Your task to perform on an android device: empty trash in google photos Image 0: 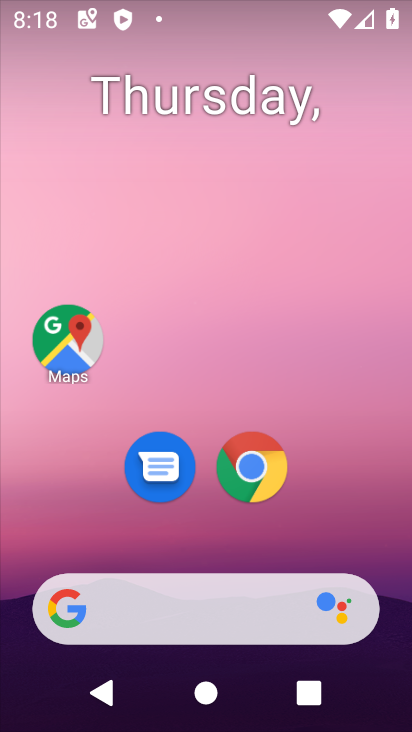
Step 0: drag from (236, 486) to (323, 159)
Your task to perform on an android device: empty trash in google photos Image 1: 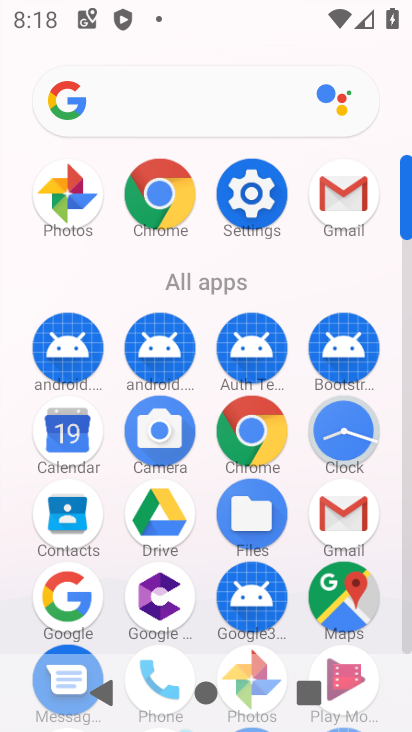
Step 1: click (79, 188)
Your task to perform on an android device: empty trash in google photos Image 2: 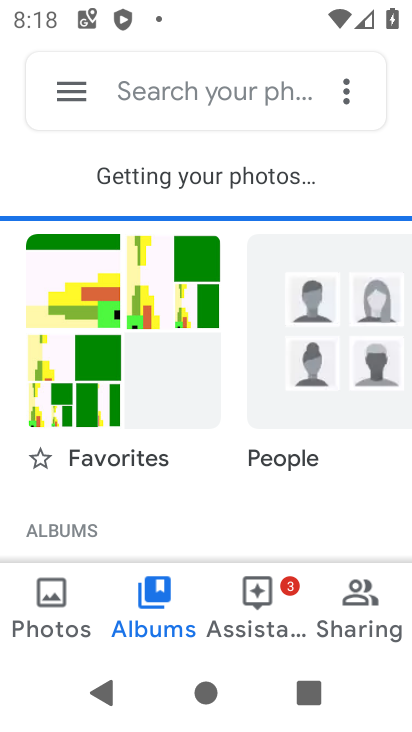
Step 2: click (59, 77)
Your task to perform on an android device: empty trash in google photos Image 3: 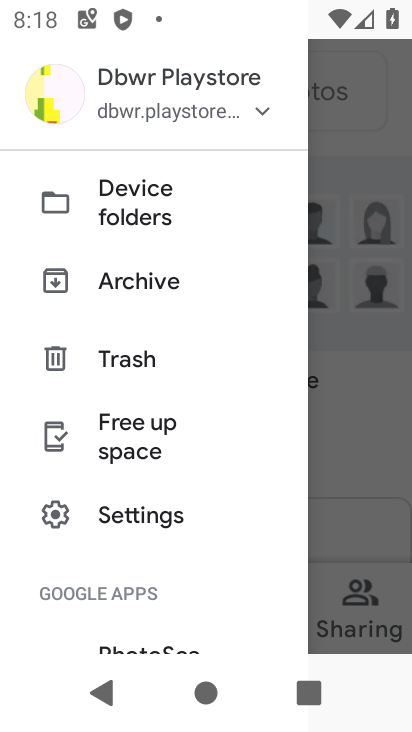
Step 3: click (141, 364)
Your task to perform on an android device: empty trash in google photos Image 4: 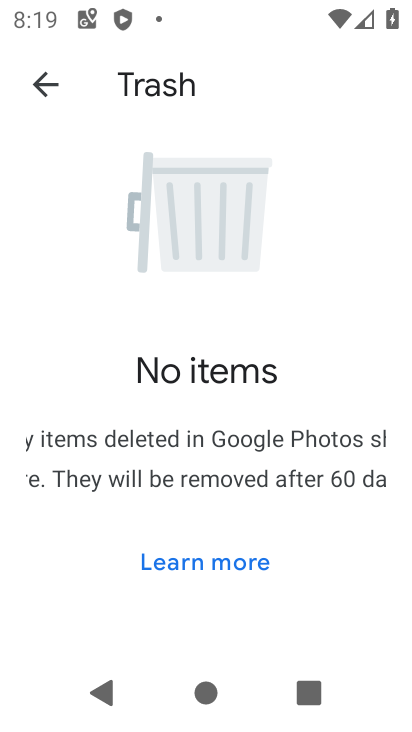
Step 4: task complete